Your task to perform on an android device: turn vacation reply on in the gmail app Image 0: 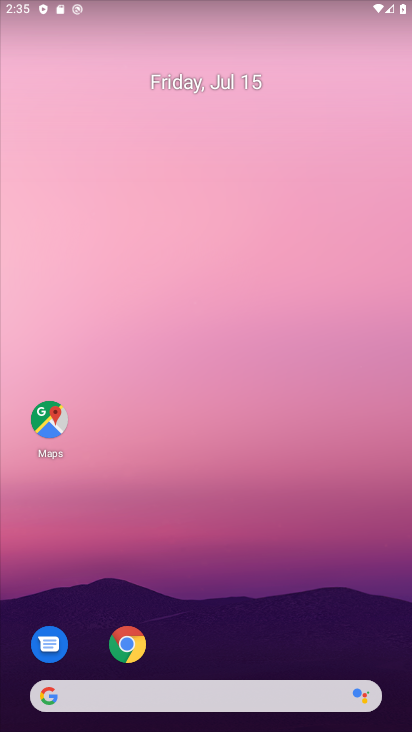
Step 0: drag from (325, 669) to (379, 97)
Your task to perform on an android device: turn vacation reply on in the gmail app Image 1: 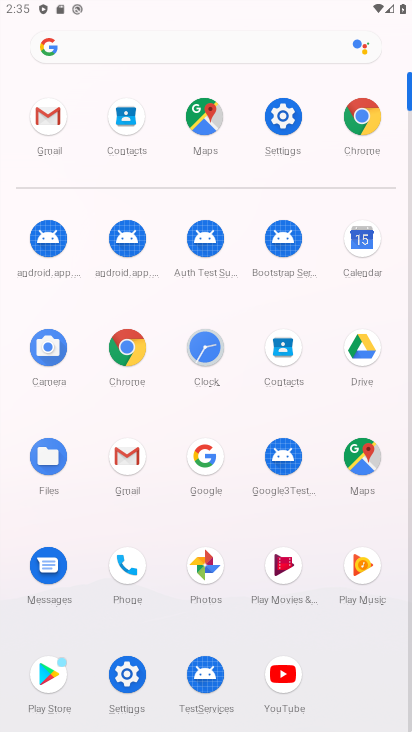
Step 1: click (128, 454)
Your task to perform on an android device: turn vacation reply on in the gmail app Image 2: 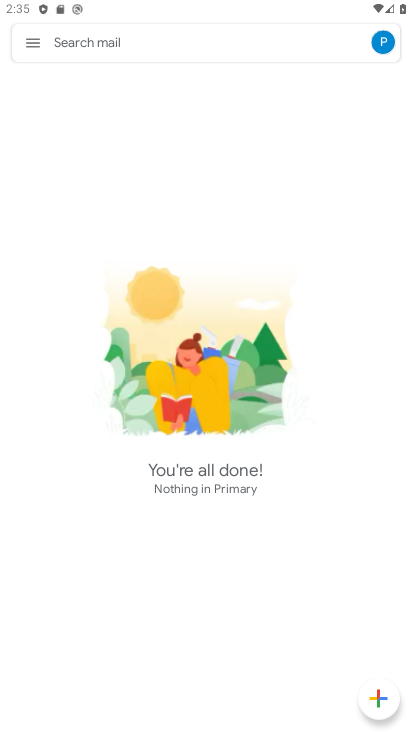
Step 2: click (36, 43)
Your task to perform on an android device: turn vacation reply on in the gmail app Image 3: 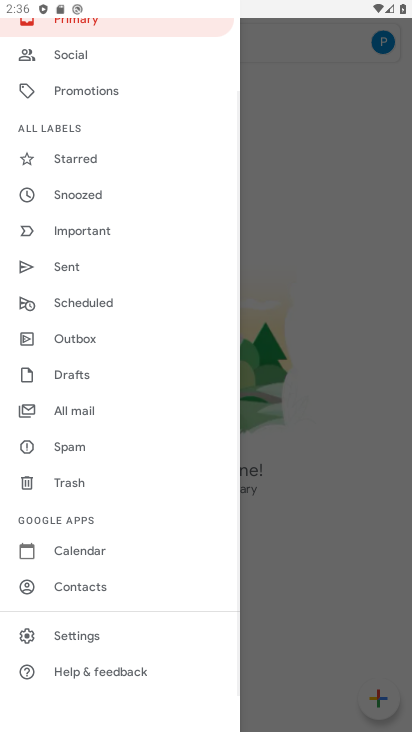
Step 3: click (86, 637)
Your task to perform on an android device: turn vacation reply on in the gmail app Image 4: 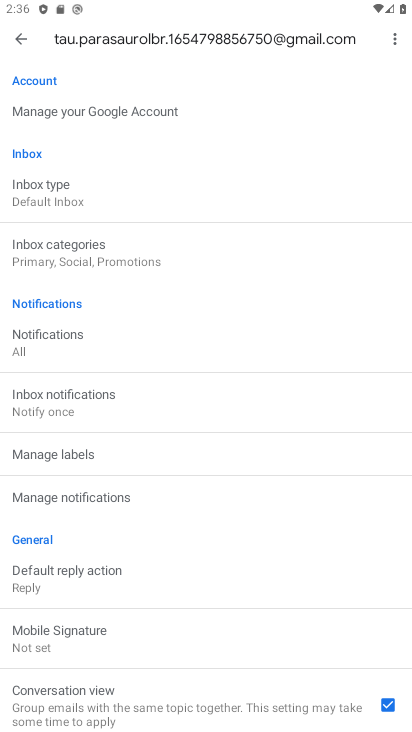
Step 4: drag from (123, 603) to (121, 203)
Your task to perform on an android device: turn vacation reply on in the gmail app Image 5: 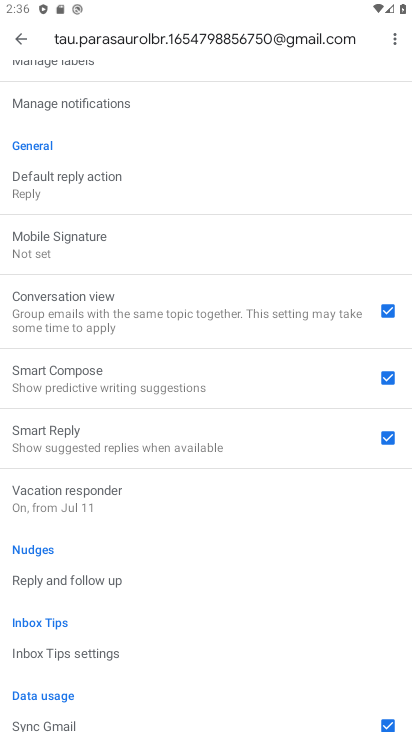
Step 5: click (118, 502)
Your task to perform on an android device: turn vacation reply on in the gmail app Image 6: 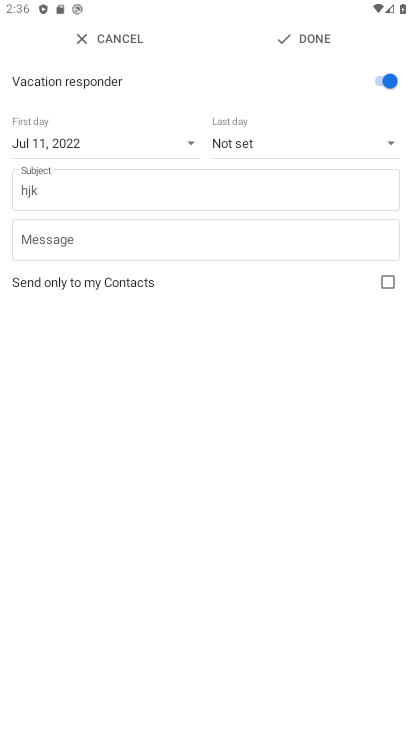
Step 6: task complete